Your task to perform on an android device: Open settings on Google Maps Image 0: 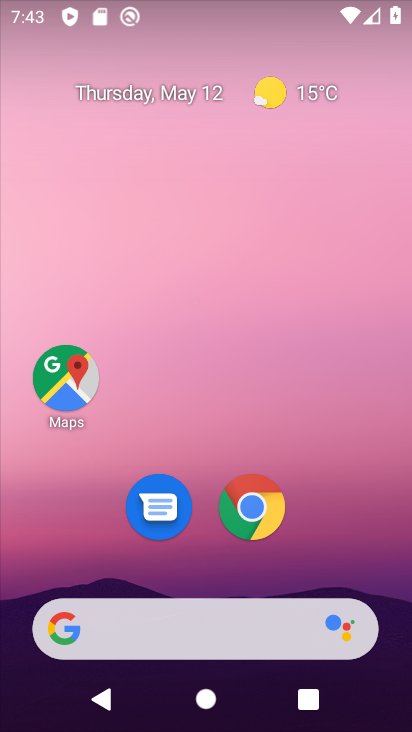
Step 0: click (67, 367)
Your task to perform on an android device: Open settings on Google Maps Image 1: 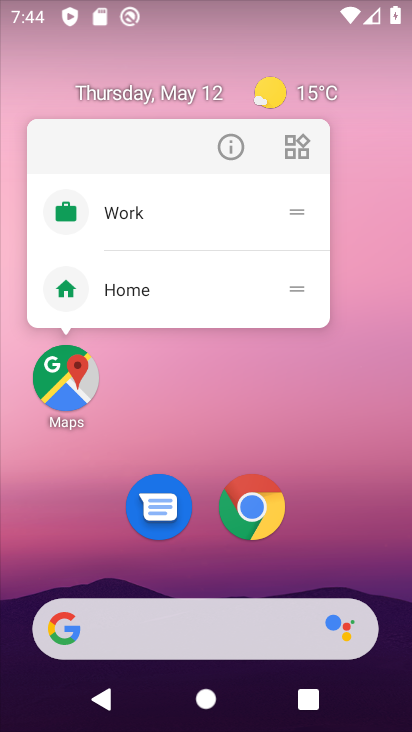
Step 1: click (67, 365)
Your task to perform on an android device: Open settings on Google Maps Image 2: 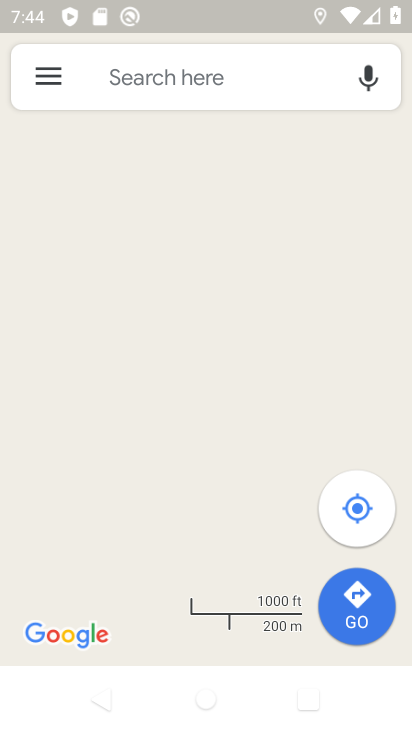
Step 2: click (66, 83)
Your task to perform on an android device: Open settings on Google Maps Image 3: 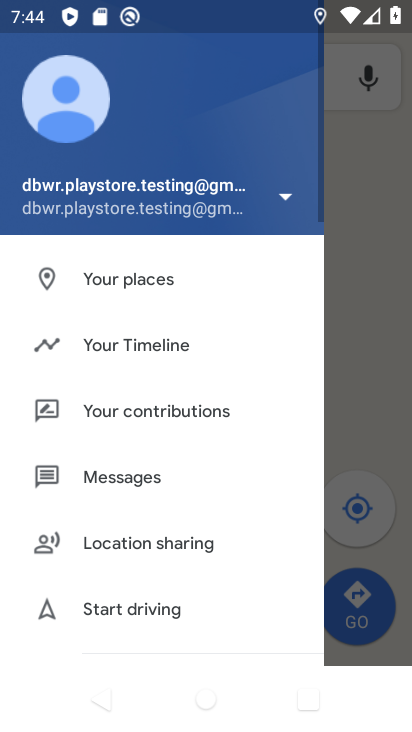
Step 3: drag from (218, 591) to (197, 78)
Your task to perform on an android device: Open settings on Google Maps Image 4: 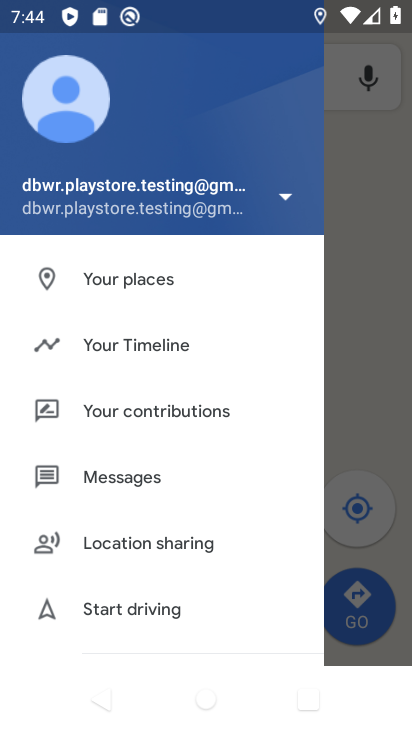
Step 4: drag from (208, 595) to (280, 132)
Your task to perform on an android device: Open settings on Google Maps Image 5: 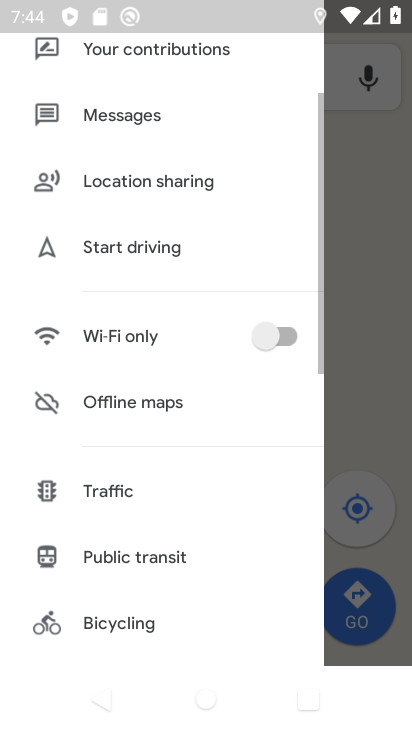
Step 5: drag from (109, 583) to (154, 226)
Your task to perform on an android device: Open settings on Google Maps Image 6: 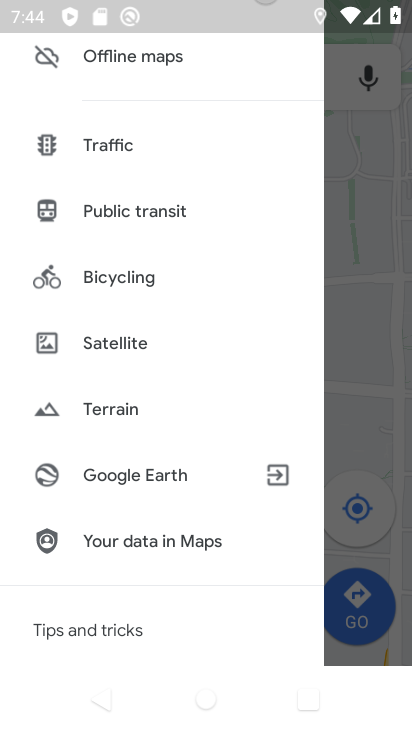
Step 6: drag from (119, 631) to (130, 270)
Your task to perform on an android device: Open settings on Google Maps Image 7: 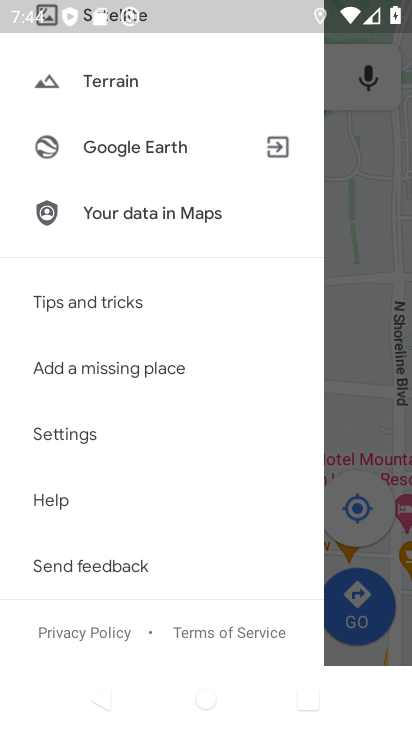
Step 7: click (109, 431)
Your task to perform on an android device: Open settings on Google Maps Image 8: 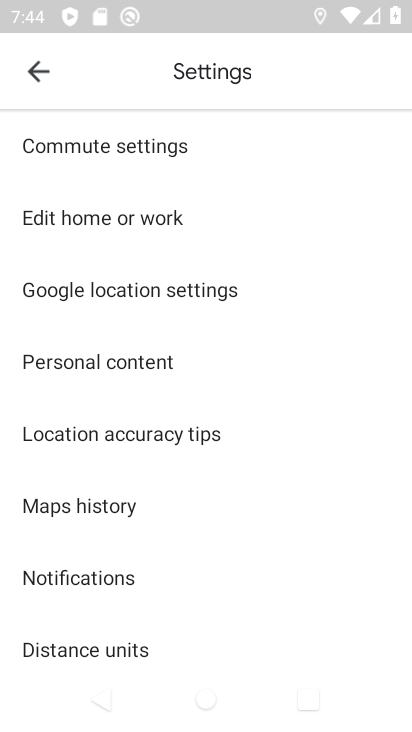
Step 8: task complete